Your task to perform on an android device: Open the phone app and click the voicemail tab. Image 0: 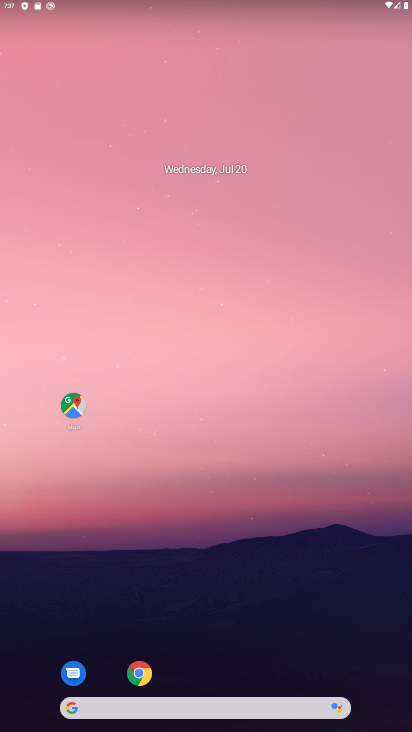
Step 0: drag from (179, 593) to (262, 179)
Your task to perform on an android device: Open the phone app and click the voicemail tab. Image 1: 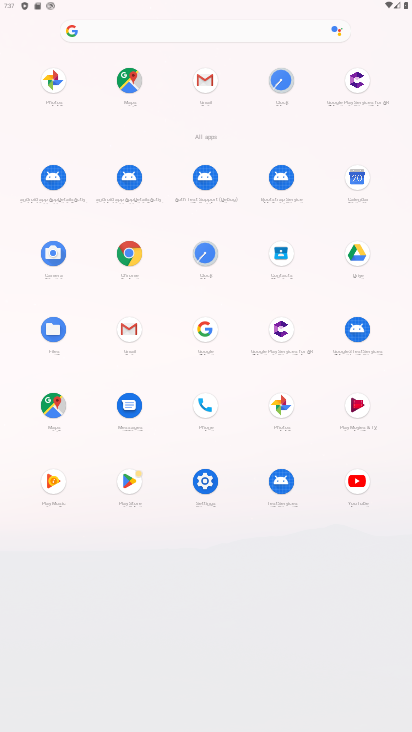
Step 1: click (207, 402)
Your task to perform on an android device: Open the phone app and click the voicemail tab. Image 2: 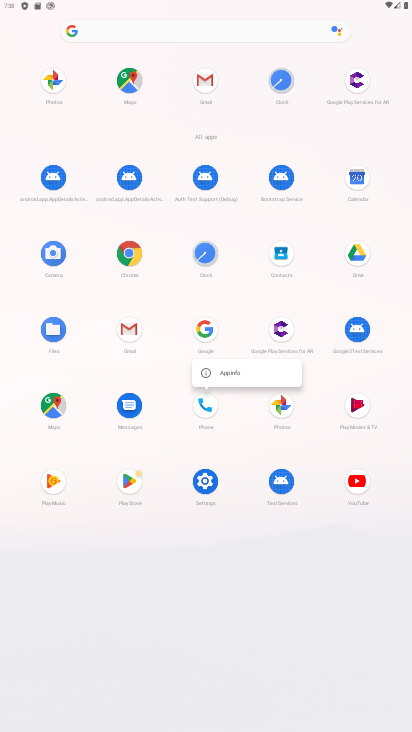
Step 2: click (238, 373)
Your task to perform on an android device: Open the phone app and click the voicemail tab. Image 3: 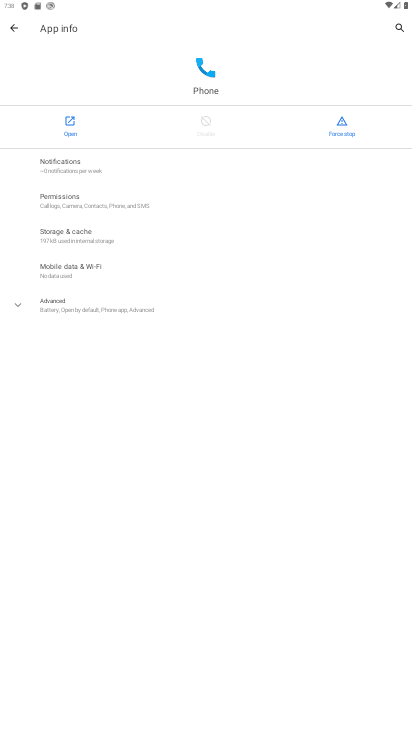
Step 3: click (70, 125)
Your task to perform on an android device: Open the phone app and click the voicemail tab. Image 4: 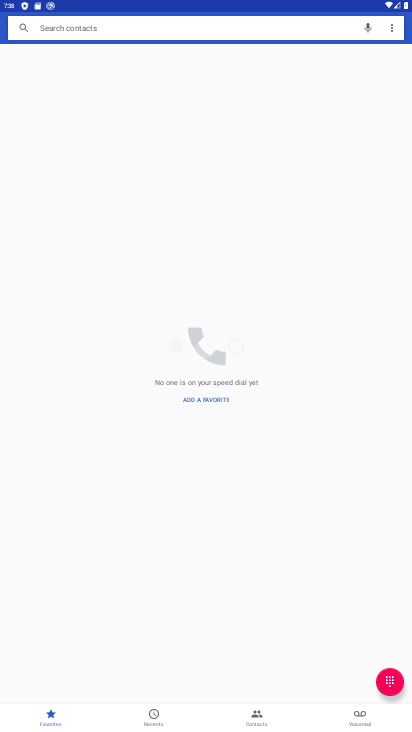
Step 4: click (361, 712)
Your task to perform on an android device: Open the phone app and click the voicemail tab. Image 5: 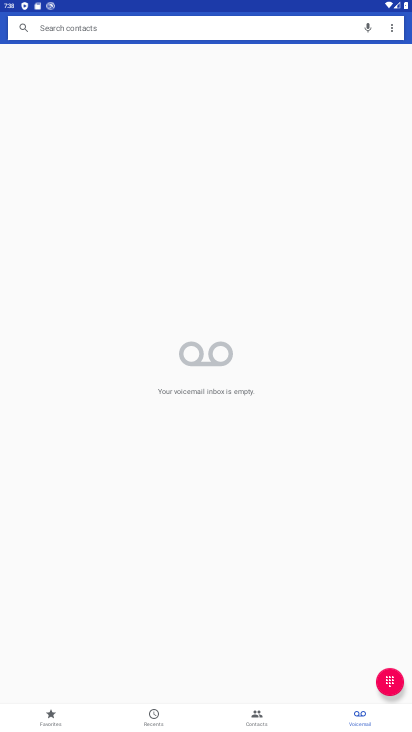
Step 5: drag from (268, 480) to (278, 198)
Your task to perform on an android device: Open the phone app and click the voicemail tab. Image 6: 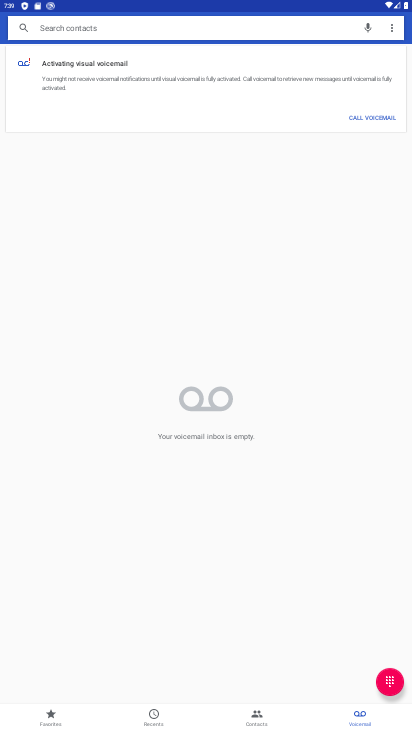
Step 6: drag from (235, 429) to (262, 203)
Your task to perform on an android device: Open the phone app and click the voicemail tab. Image 7: 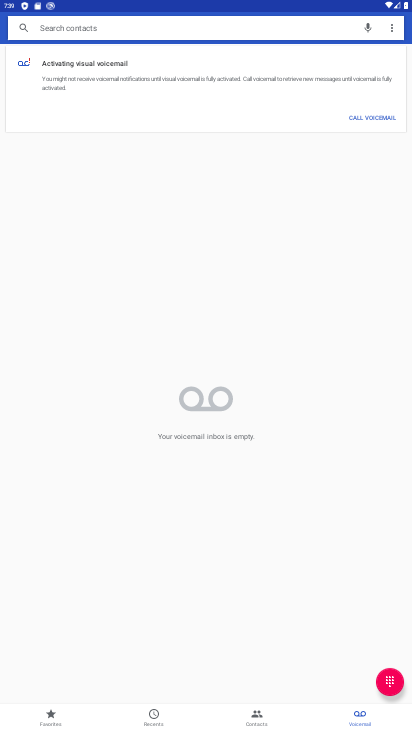
Step 7: click (368, 718)
Your task to perform on an android device: Open the phone app and click the voicemail tab. Image 8: 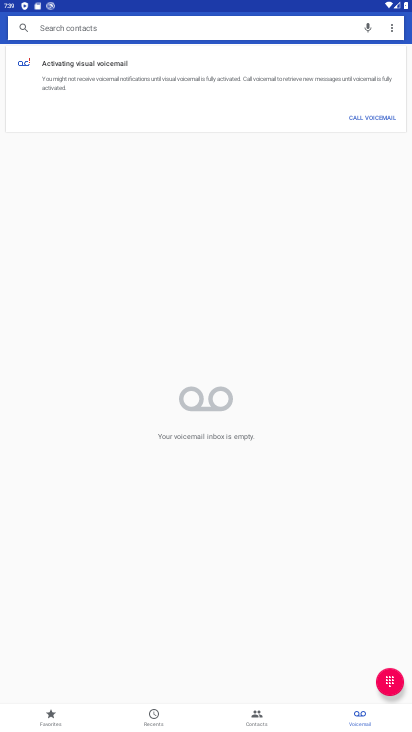
Step 8: task complete